Your task to perform on an android device: toggle improve location accuracy Image 0: 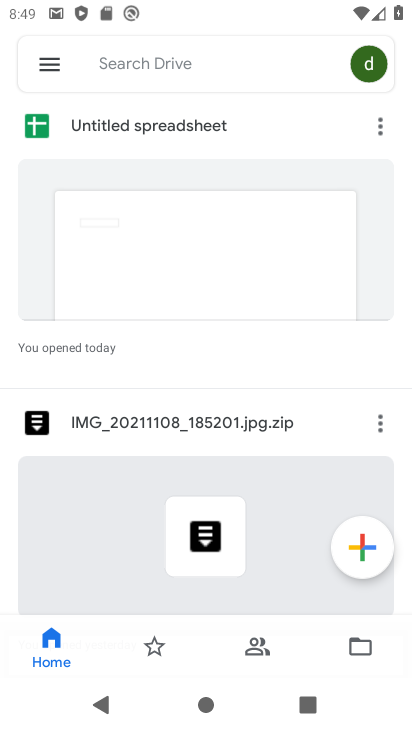
Step 0: press home button
Your task to perform on an android device: toggle improve location accuracy Image 1: 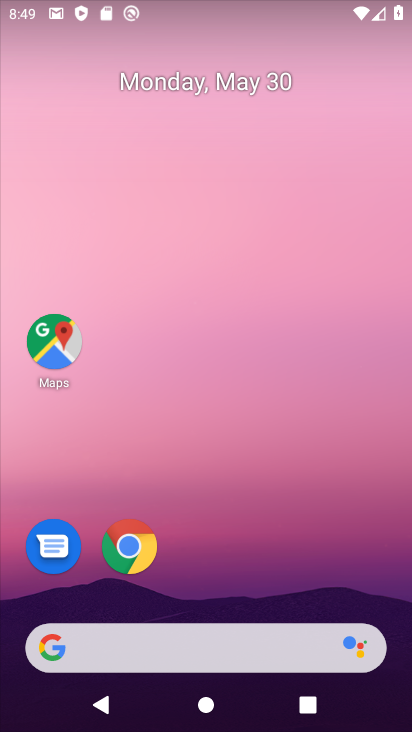
Step 1: drag from (278, 535) to (222, 87)
Your task to perform on an android device: toggle improve location accuracy Image 2: 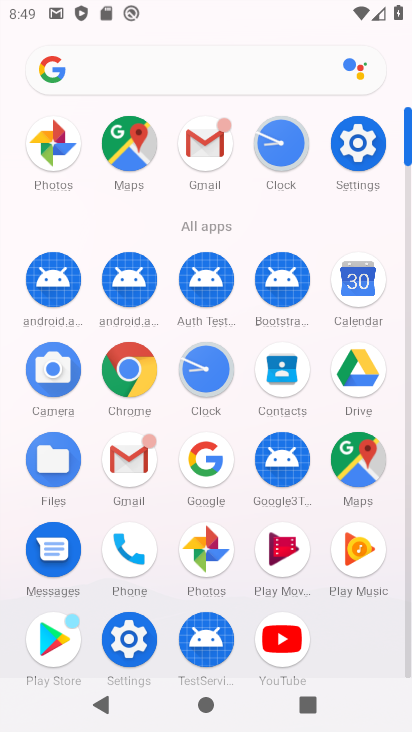
Step 2: click (366, 137)
Your task to perform on an android device: toggle improve location accuracy Image 3: 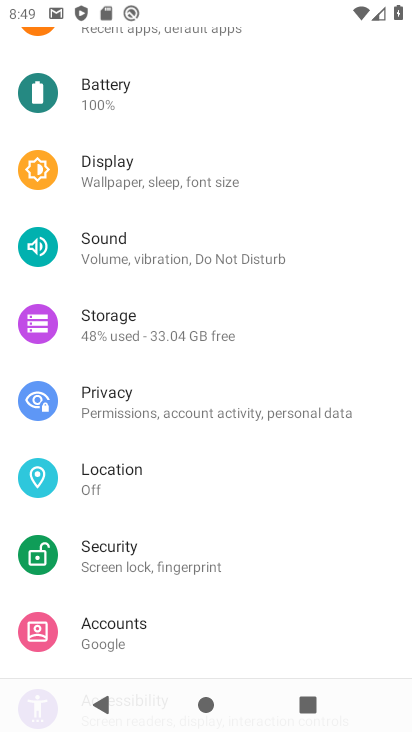
Step 3: click (117, 470)
Your task to perform on an android device: toggle improve location accuracy Image 4: 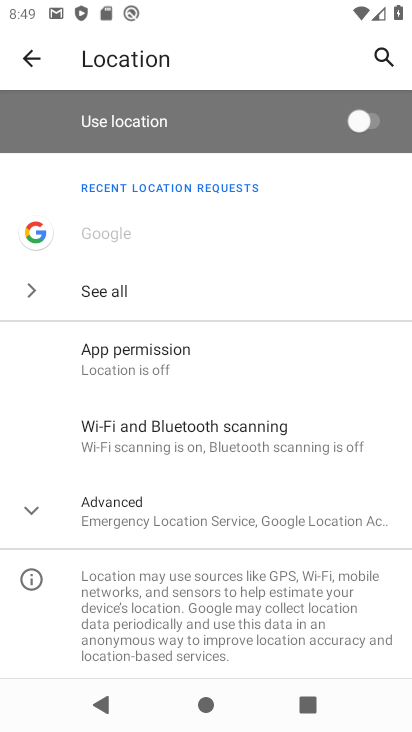
Step 4: click (118, 294)
Your task to perform on an android device: toggle improve location accuracy Image 5: 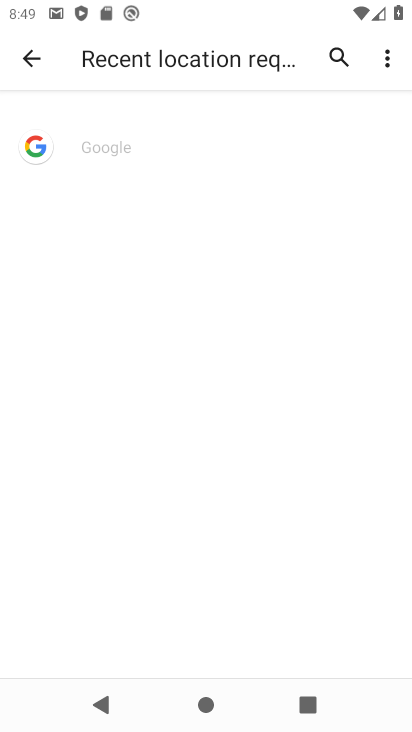
Step 5: click (33, 60)
Your task to perform on an android device: toggle improve location accuracy Image 6: 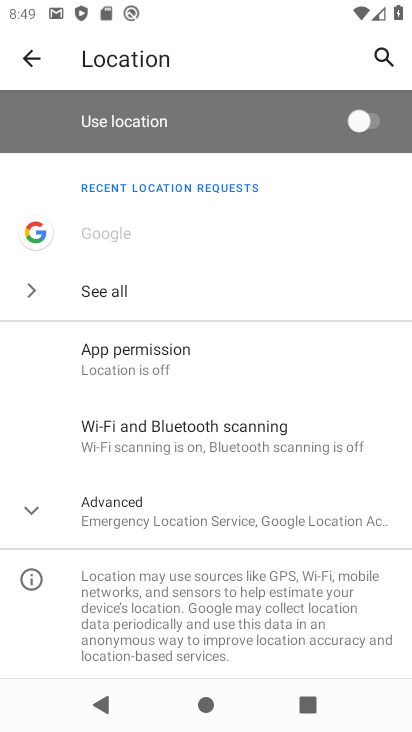
Step 6: click (99, 517)
Your task to perform on an android device: toggle improve location accuracy Image 7: 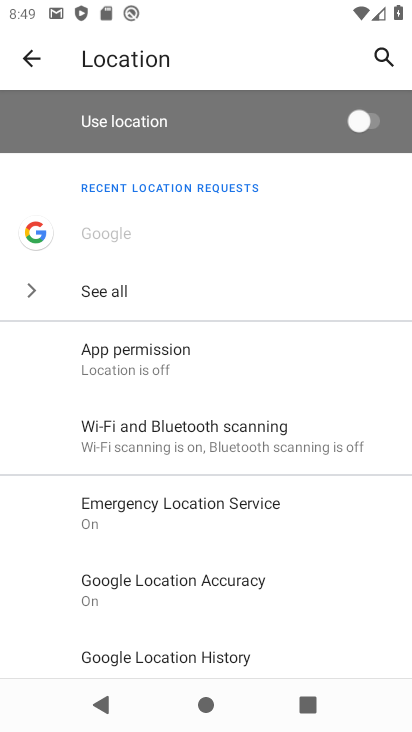
Step 7: click (162, 576)
Your task to perform on an android device: toggle improve location accuracy Image 8: 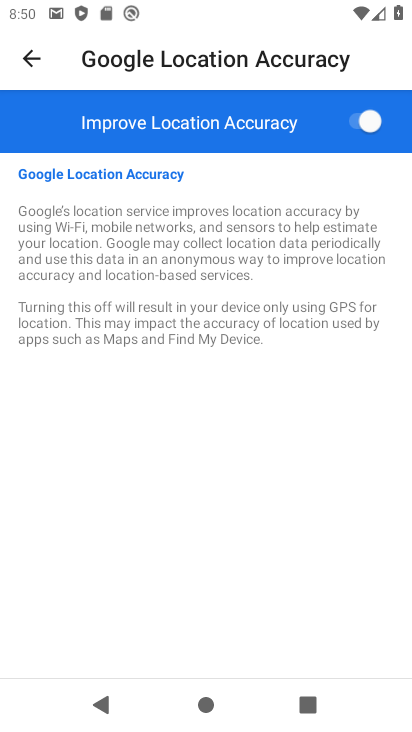
Step 8: click (371, 111)
Your task to perform on an android device: toggle improve location accuracy Image 9: 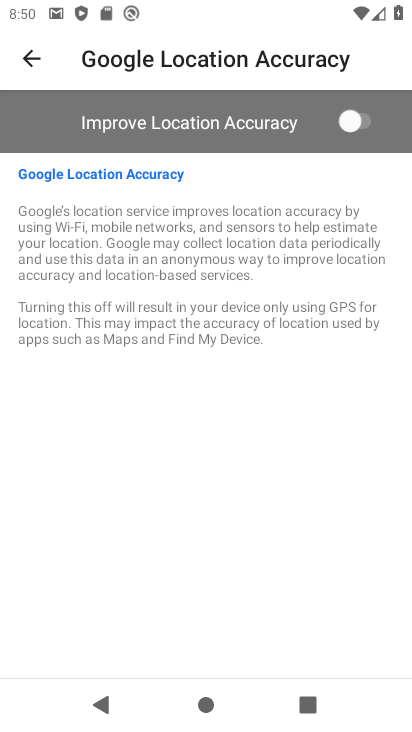
Step 9: task complete